Your task to perform on an android device: set an alarm Image 0: 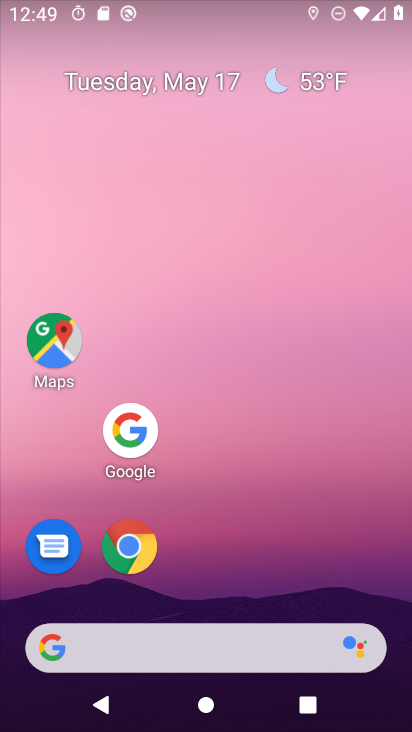
Step 0: drag from (215, 548) to (172, 92)
Your task to perform on an android device: set an alarm Image 1: 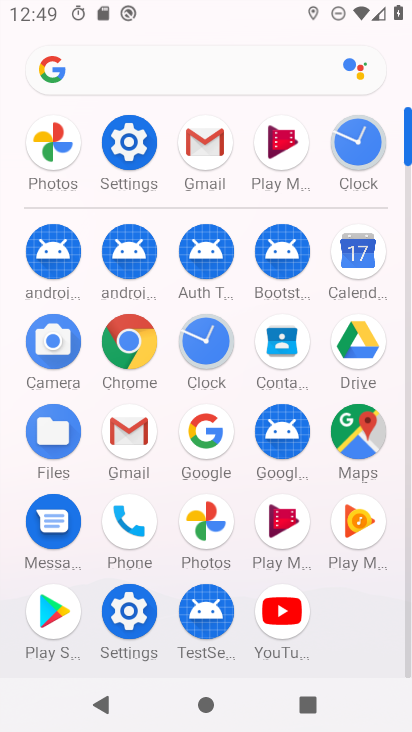
Step 1: click (201, 341)
Your task to perform on an android device: set an alarm Image 2: 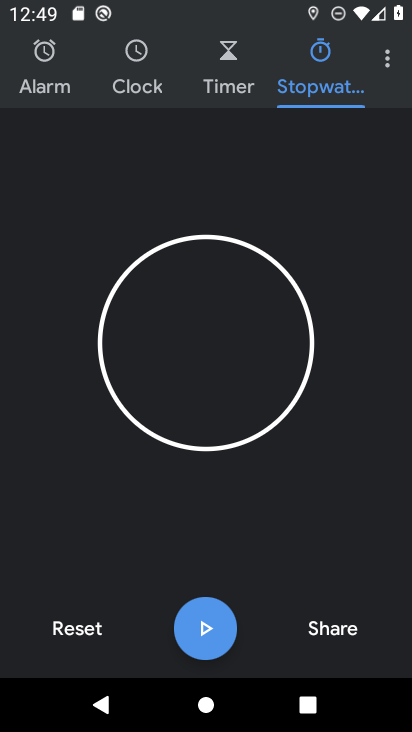
Step 2: click (38, 63)
Your task to perform on an android device: set an alarm Image 3: 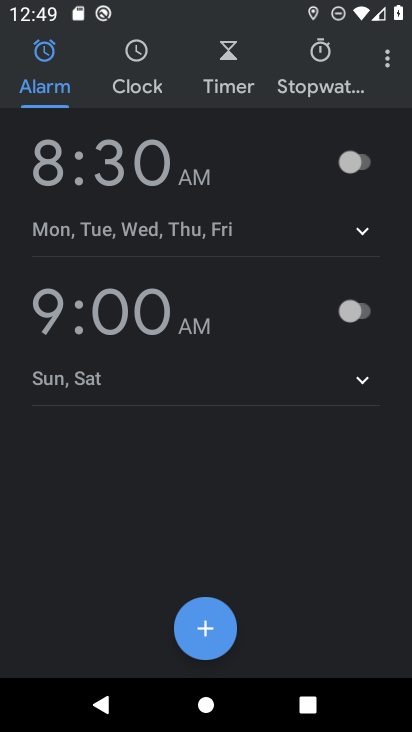
Step 3: click (357, 160)
Your task to perform on an android device: set an alarm Image 4: 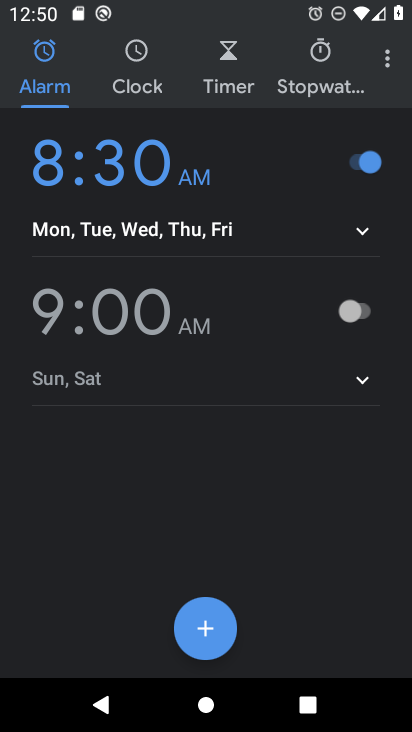
Step 4: task complete